Your task to perform on an android device: What is the news today? Image 0: 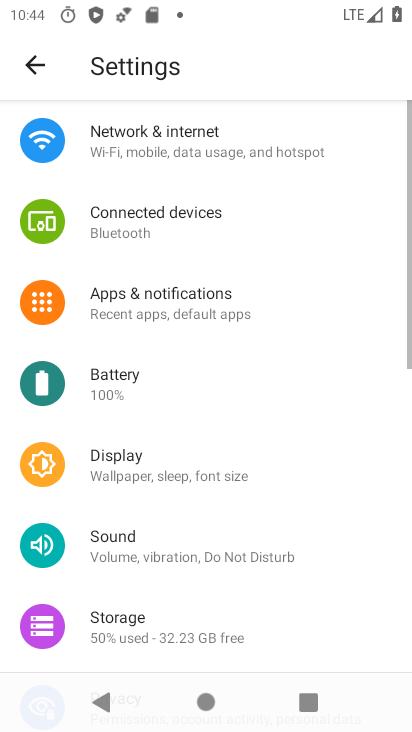
Step 0: press home button
Your task to perform on an android device: What is the news today? Image 1: 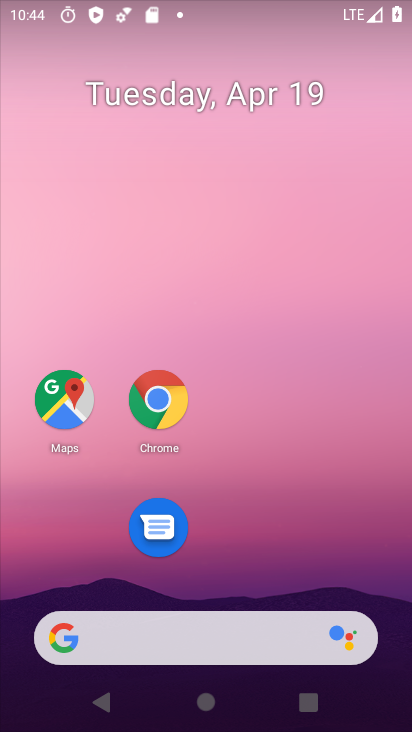
Step 1: click (147, 642)
Your task to perform on an android device: What is the news today? Image 2: 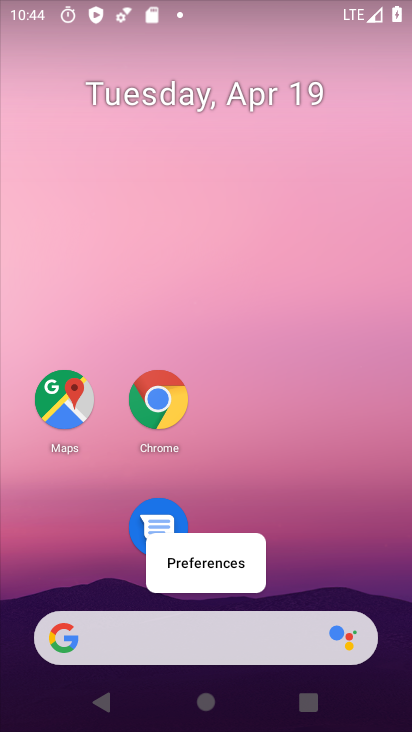
Step 2: click (147, 641)
Your task to perform on an android device: What is the news today? Image 3: 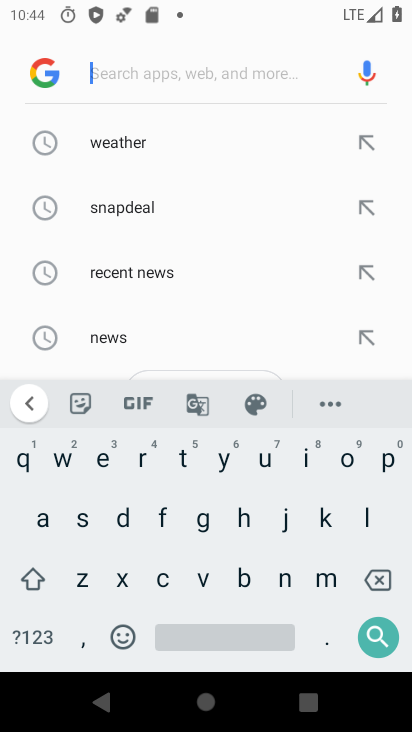
Step 3: click (287, 577)
Your task to perform on an android device: What is the news today? Image 4: 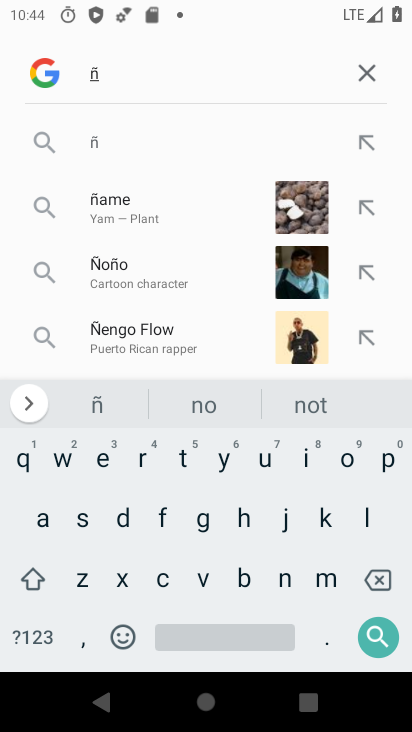
Step 4: click (377, 587)
Your task to perform on an android device: What is the news today? Image 5: 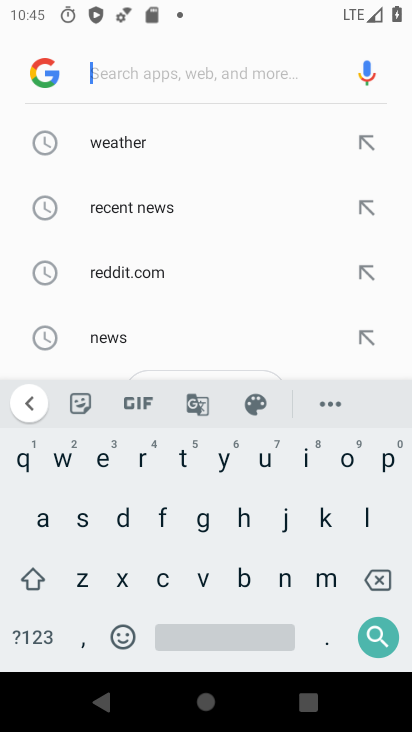
Step 5: click (279, 580)
Your task to perform on an android device: What is the news today? Image 6: 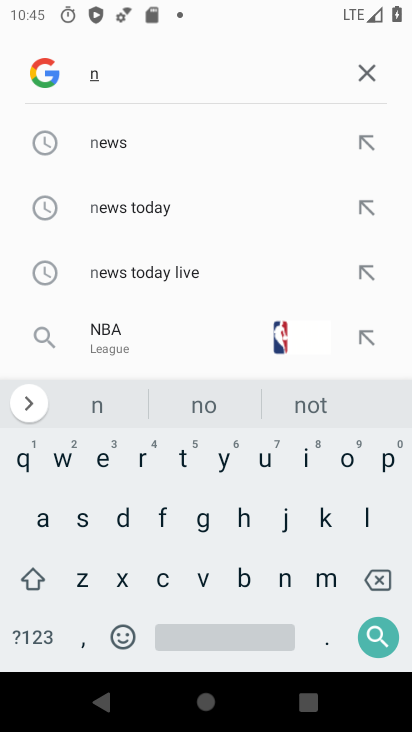
Step 6: click (142, 217)
Your task to perform on an android device: What is the news today? Image 7: 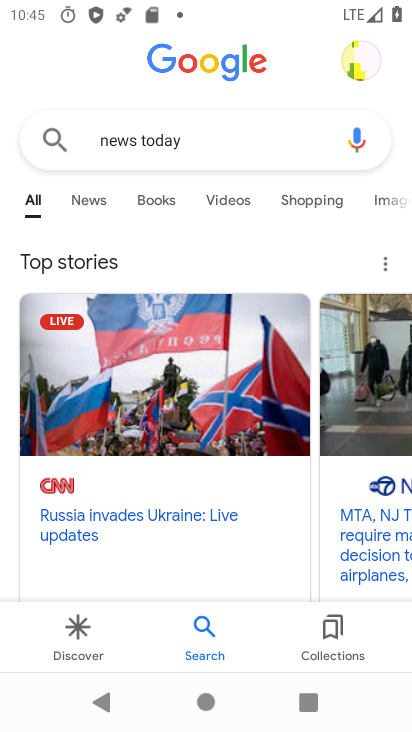
Step 7: task complete